Your task to perform on an android device: check battery use Image 0: 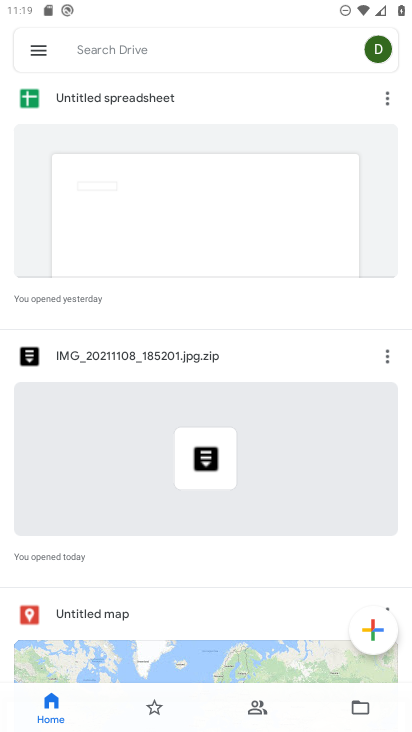
Step 0: press home button
Your task to perform on an android device: check battery use Image 1: 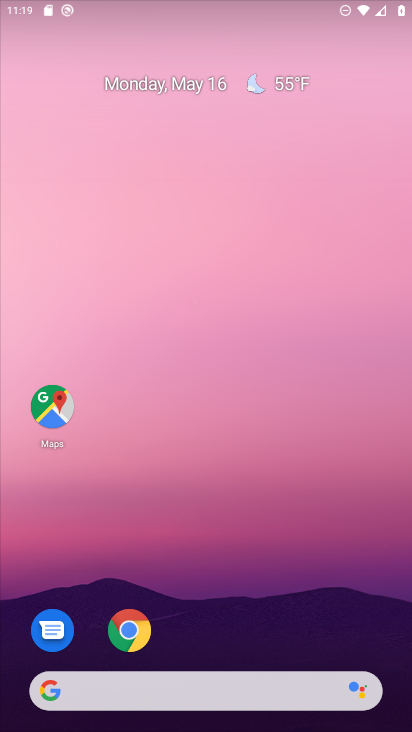
Step 1: drag from (228, 444) to (247, 0)
Your task to perform on an android device: check battery use Image 2: 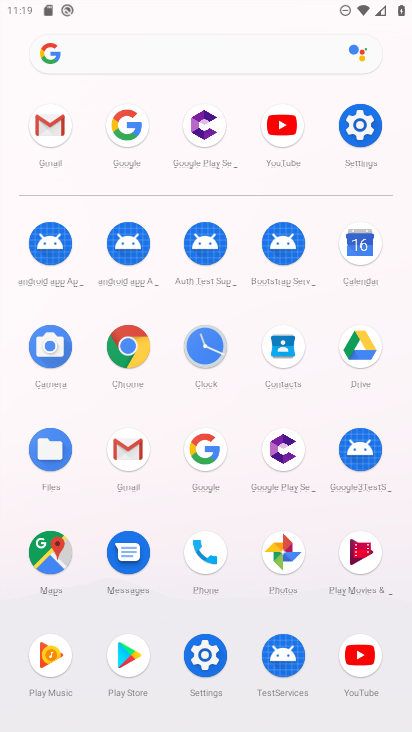
Step 2: click (343, 129)
Your task to perform on an android device: check battery use Image 3: 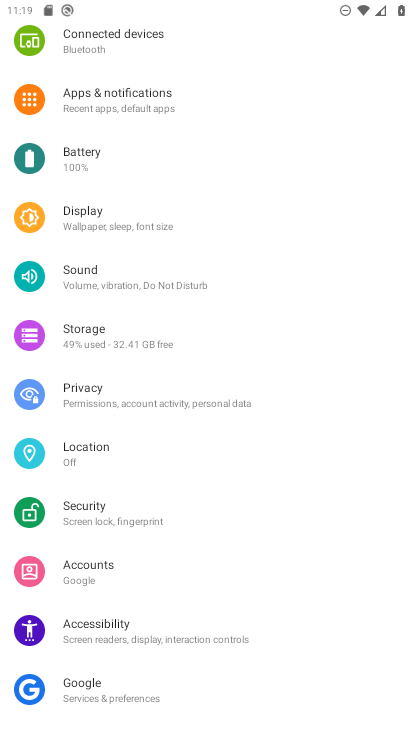
Step 3: click (211, 165)
Your task to perform on an android device: check battery use Image 4: 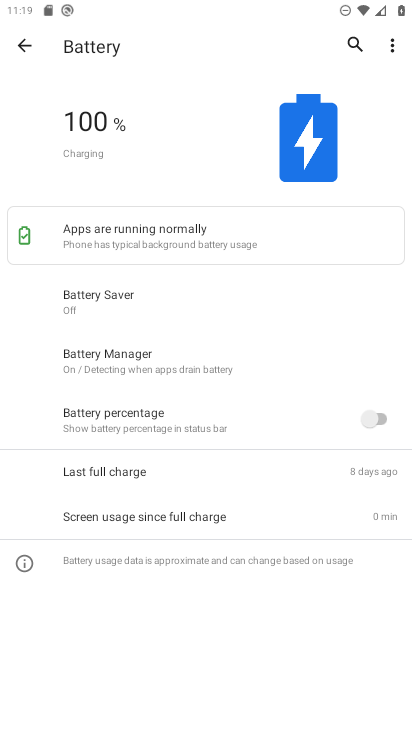
Step 4: click (391, 42)
Your task to perform on an android device: check battery use Image 5: 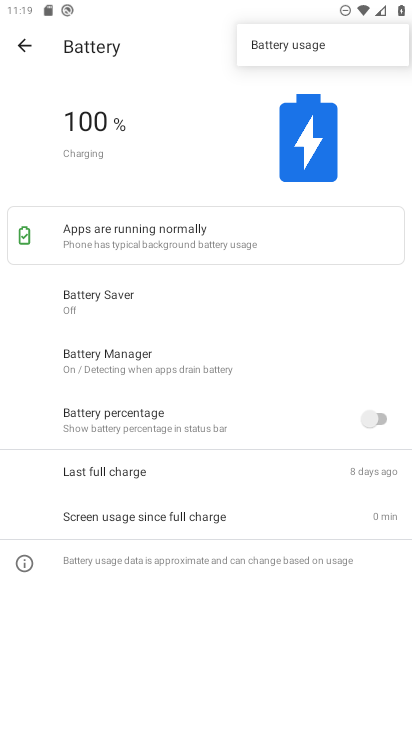
Step 5: click (360, 45)
Your task to perform on an android device: check battery use Image 6: 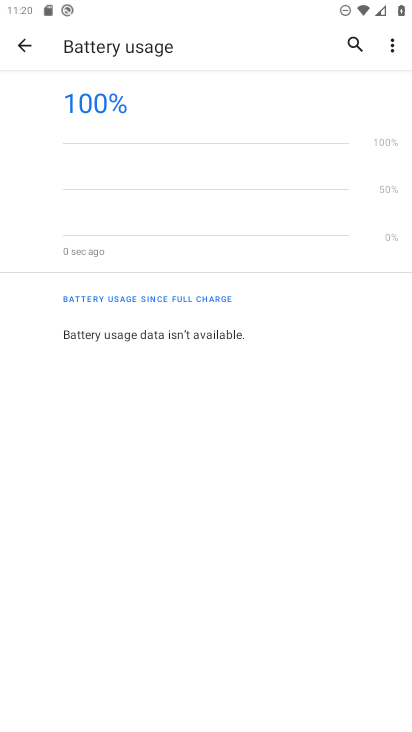
Step 6: task complete